Your task to perform on an android device: Go to wifi settings Image 0: 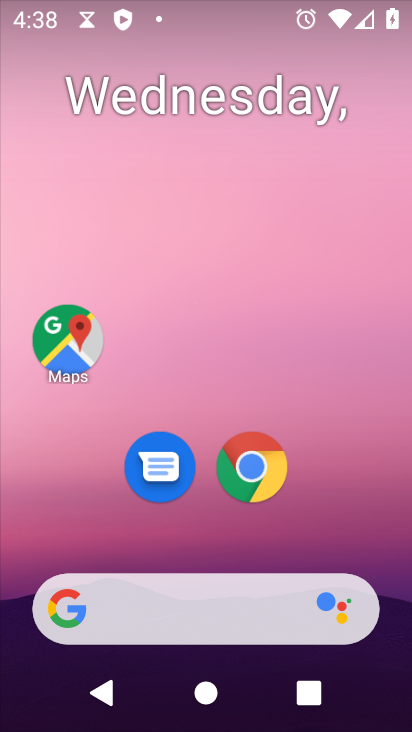
Step 0: drag from (361, 409) to (335, 8)
Your task to perform on an android device: Go to wifi settings Image 1: 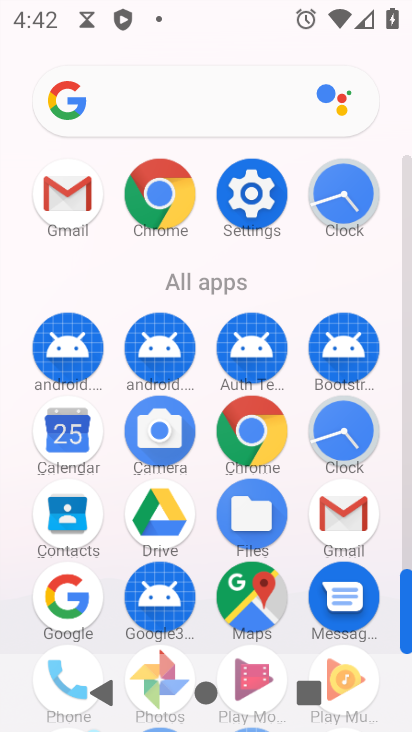
Step 1: click (246, 183)
Your task to perform on an android device: Go to wifi settings Image 2: 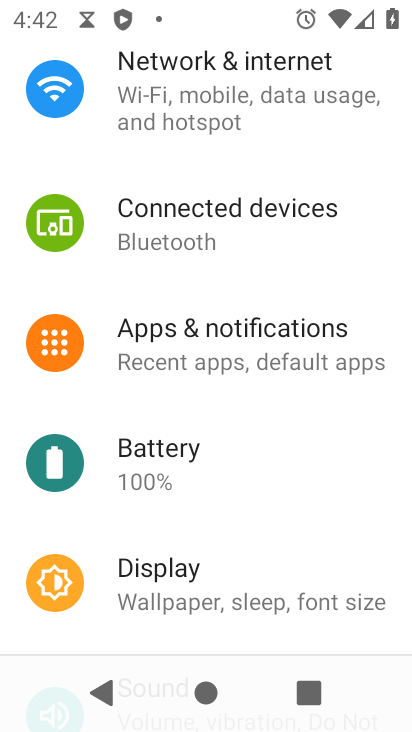
Step 2: drag from (177, 105) to (207, 473)
Your task to perform on an android device: Go to wifi settings Image 3: 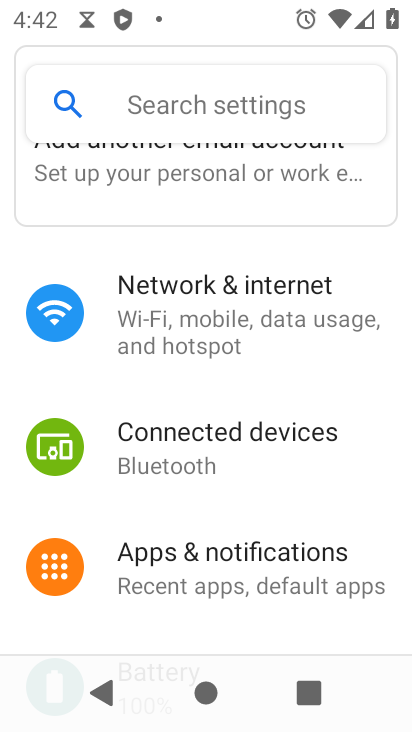
Step 3: drag from (185, 299) to (200, 393)
Your task to perform on an android device: Go to wifi settings Image 4: 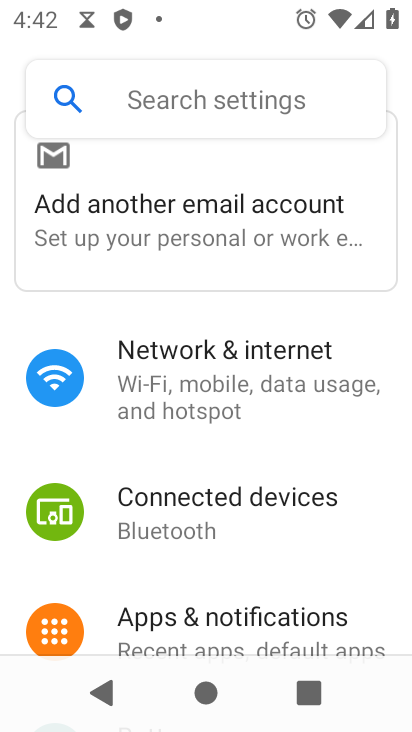
Step 4: click (195, 351)
Your task to perform on an android device: Go to wifi settings Image 5: 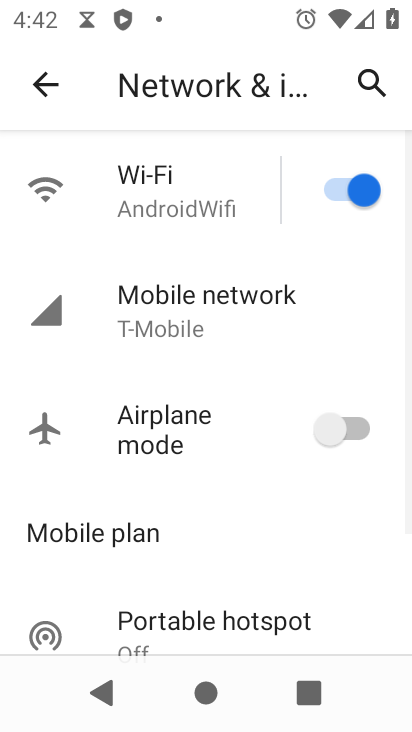
Step 5: click (206, 229)
Your task to perform on an android device: Go to wifi settings Image 6: 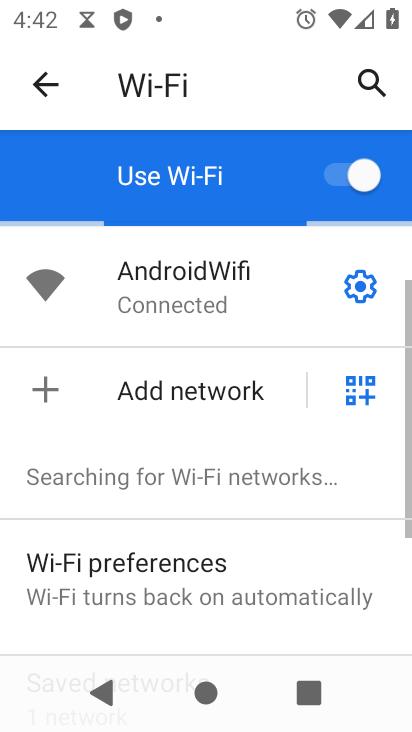
Step 6: task complete